Your task to perform on an android device: change the clock display to analog Image 0: 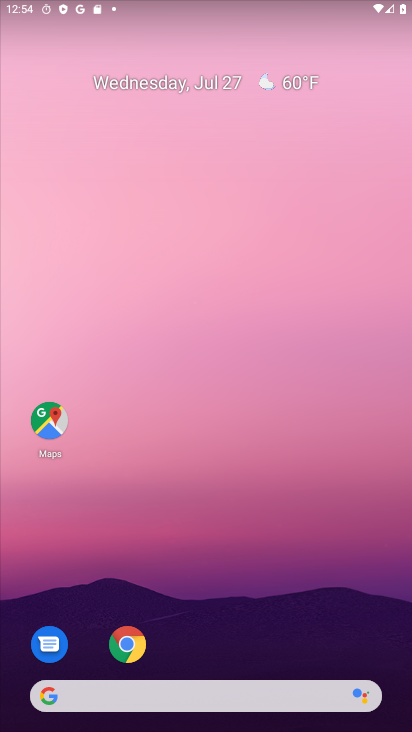
Step 0: drag from (164, 666) to (248, 242)
Your task to perform on an android device: change the clock display to analog Image 1: 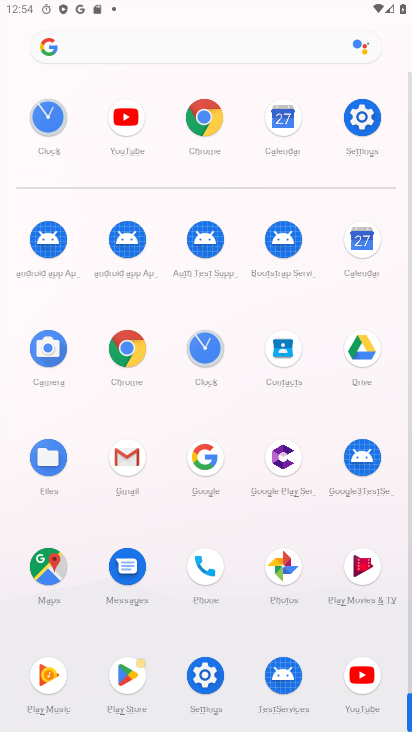
Step 1: click (207, 335)
Your task to perform on an android device: change the clock display to analog Image 2: 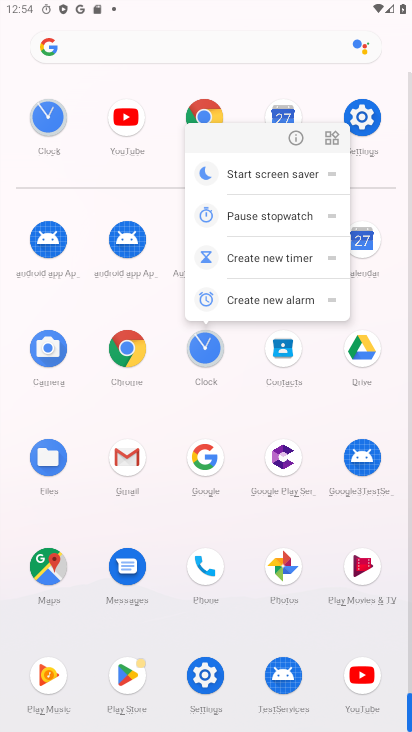
Step 2: click (289, 140)
Your task to perform on an android device: change the clock display to analog Image 3: 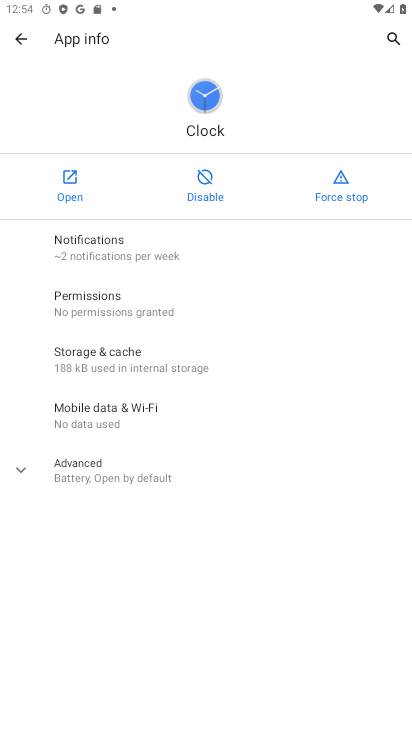
Step 3: click (66, 185)
Your task to perform on an android device: change the clock display to analog Image 4: 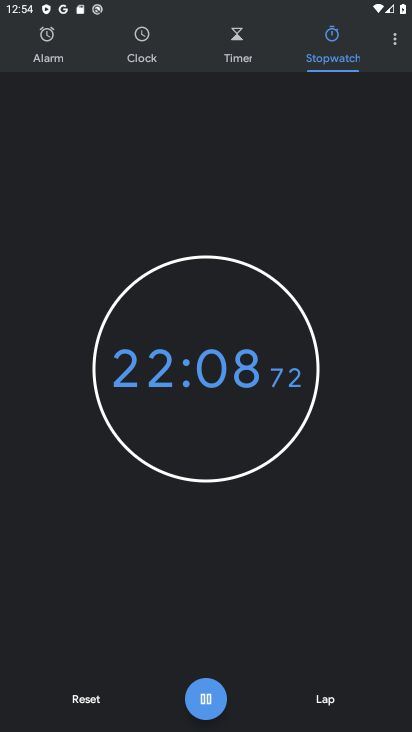
Step 4: click (396, 41)
Your task to perform on an android device: change the clock display to analog Image 5: 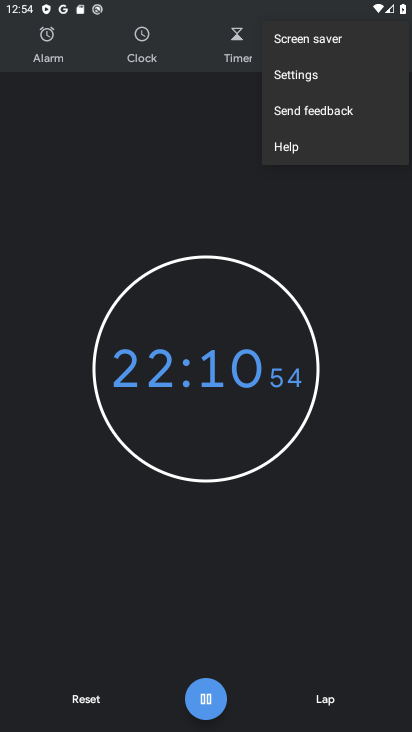
Step 5: click (316, 86)
Your task to perform on an android device: change the clock display to analog Image 6: 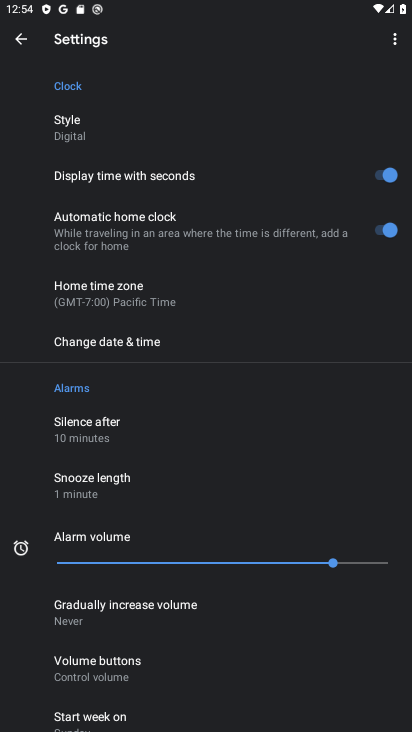
Step 6: click (113, 129)
Your task to perform on an android device: change the clock display to analog Image 7: 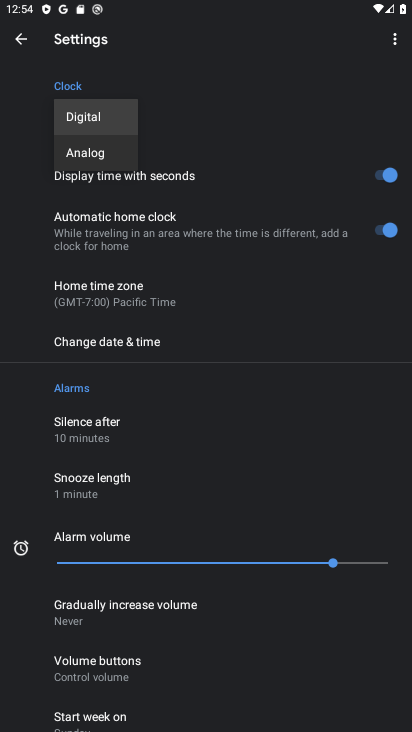
Step 7: click (109, 144)
Your task to perform on an android device: change the clock display to analog Image 8: 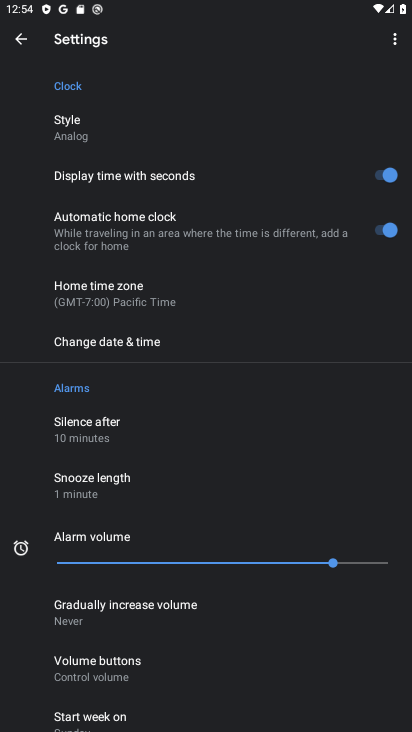
Step 8: task complete